Your task to perform on an android device: find which apps use the phone's location Image 0: 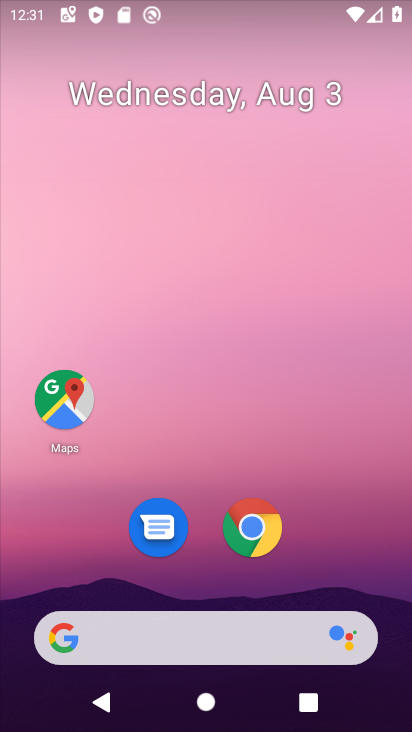
Step 0: drag from (221, 613) to (227, 46)
Your task to perform on an android device: find which apps use the phone's location Image 1: 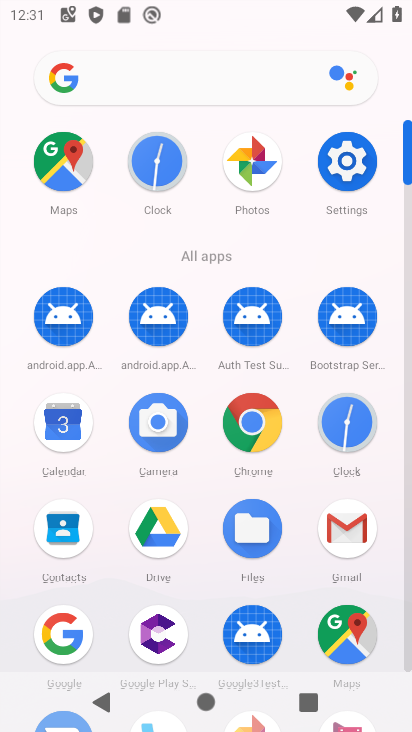
Step 1: click (360, 159)
Your task to perform on an android device: find which apps use the phone's location Image 2: 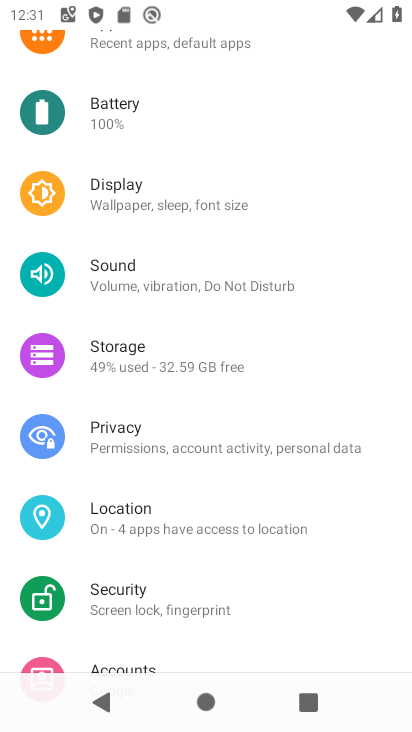
Step 2: drag from (202, 175) to (235, 229)
Your task to perform on an android device: find which apps use the phone's location Image 3: 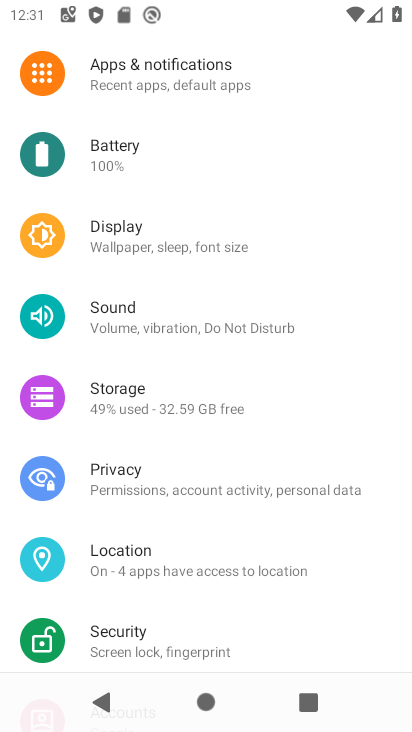
Step 3: click (135, 573)
Your task to perform on an android device: find which apps use the phone's location Image 4: 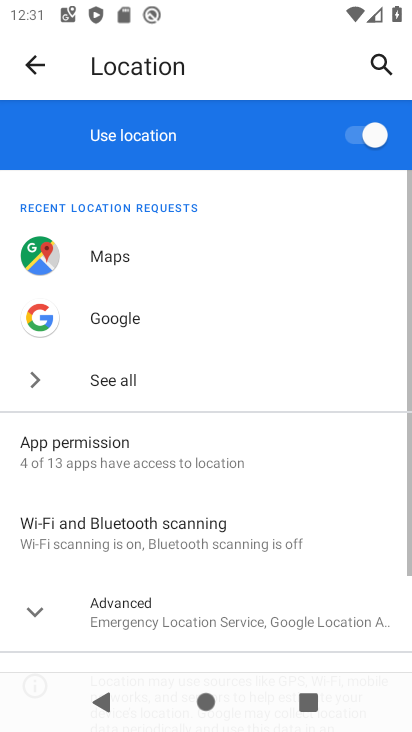
Step 4: click (150, 454)
Your task to perform on an android device: find which apps use the phone's location Image 5: 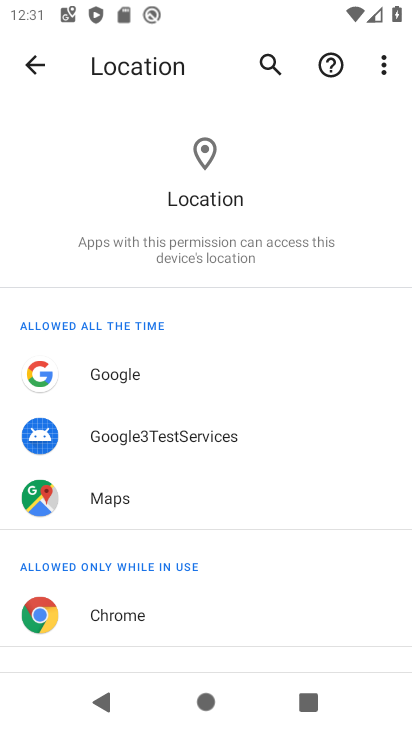
Step 5: task complete